Your task to perform on an android device: find photos in the google photos app Image 0: 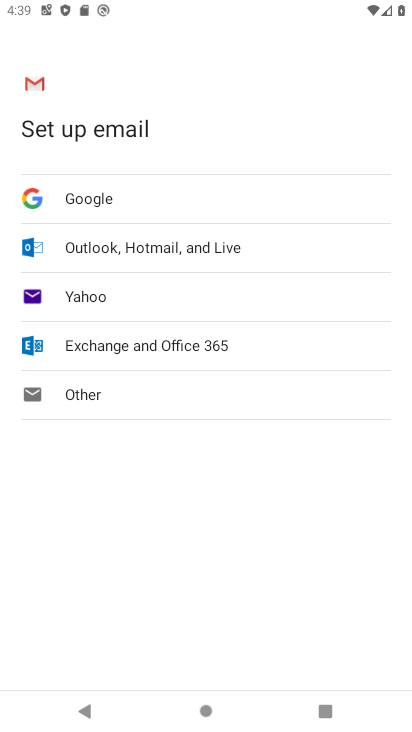
Step 0: press home button
Your task to perform on an android device: find photos in the google photos app Image 1: 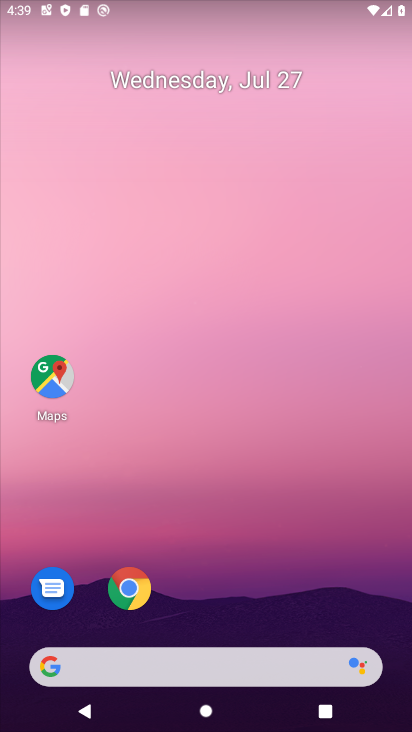
Step 1: drag from (232, 712) to (237, 141)
Your task to perform on an android device: find photos in the google photos app Image 2: 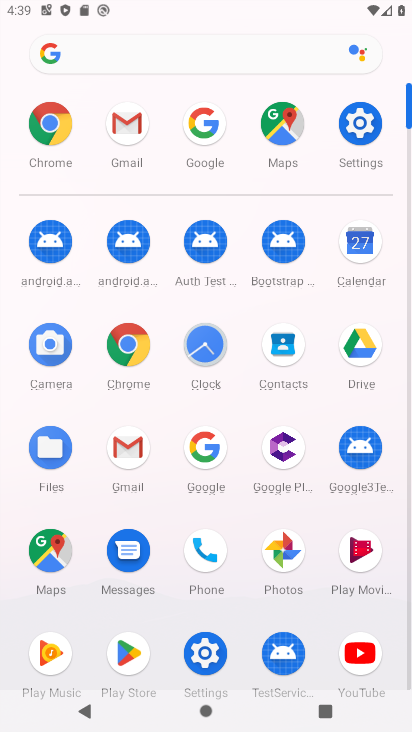
Step 2: click (275, 541)
Your task to perform on an android device: find photos in the google photos app Image 3: 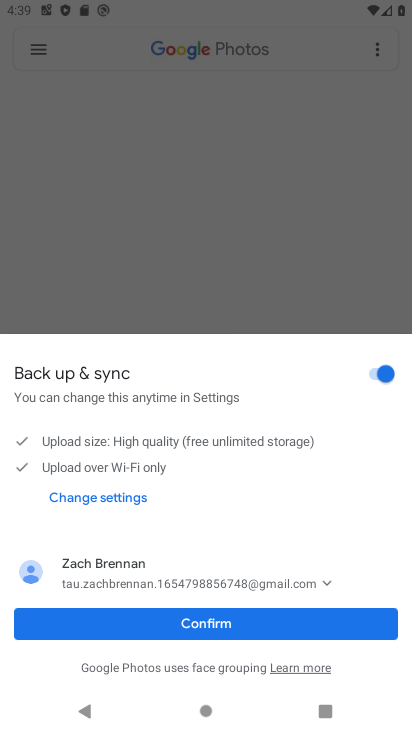
Step 3: click (242, 619)
Your task to perform on an android device: find photos in the google photos app Image 4: 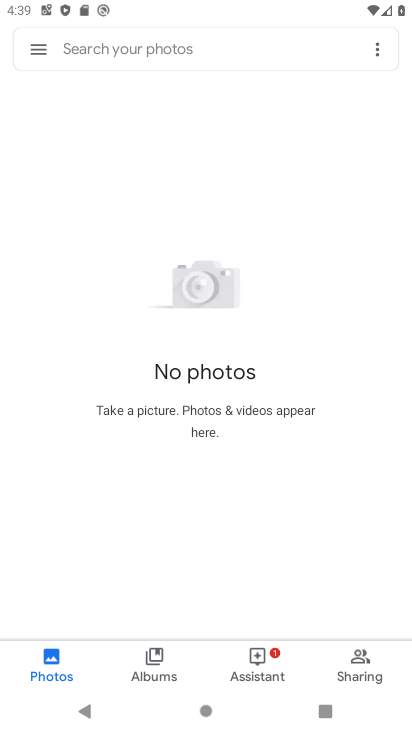
Step 4: task complete